Your task to perform on an android device: move an email to a new category in the gmail app Image 0: 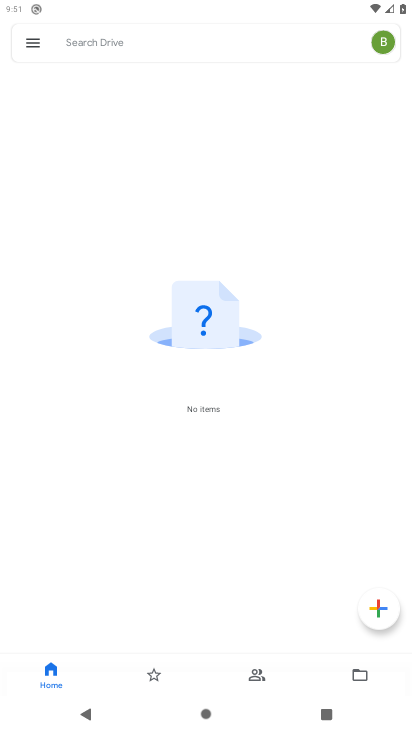
Step 0: click (122, 675)
Your task to perform on an android device: move an email to a new category in the gmail app Image 1: 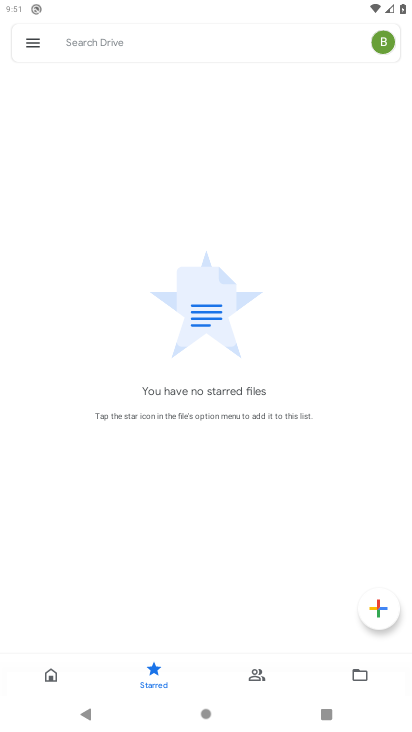
Step 1: press home button
Your task to perform on an android device: move an email to a new category in the gmail app Image 2: 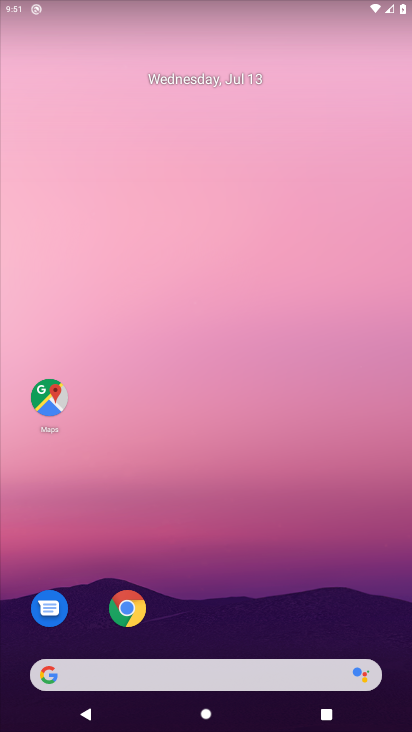
Step 2: drag from (113, 547) to (302, 92)
Your task to perform on an android device: move an email to a new category in the gmail app Image 3: 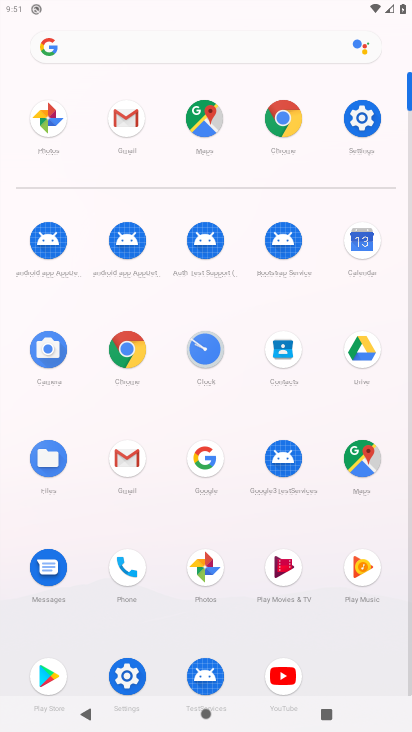
Step 3: click (124, 450)
Your task to perform on an android device: move an email to a new category in the gmail app Image 4: 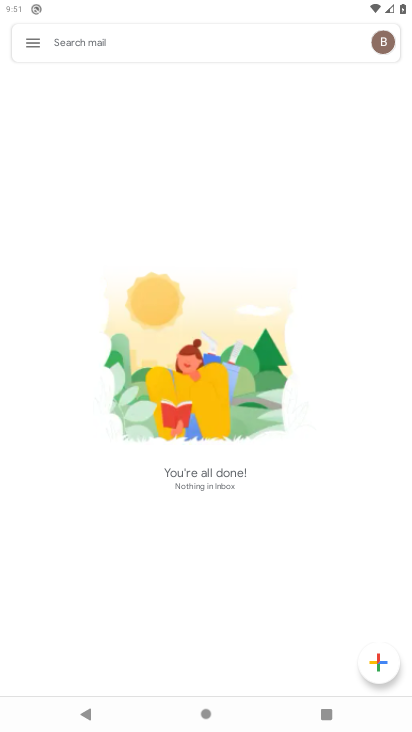
Step 4: click (34, 48)
Your task to perform on an android device: move an email to a new category in the gmail app Image 5: 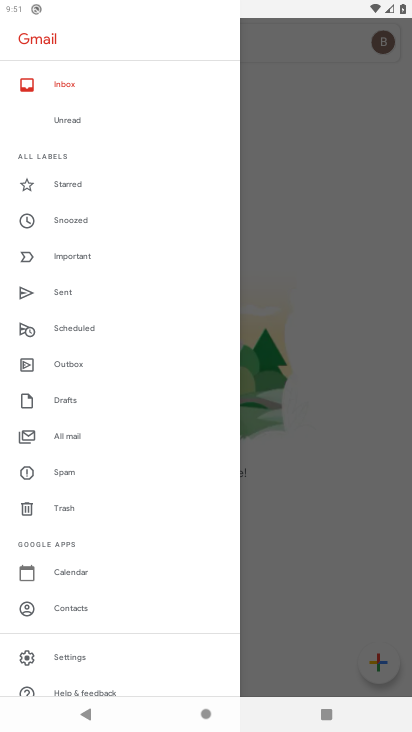
Step 5: click (75, 94)
Your task to perform on an android device: move an email to a new category in the gmail app Image 6: 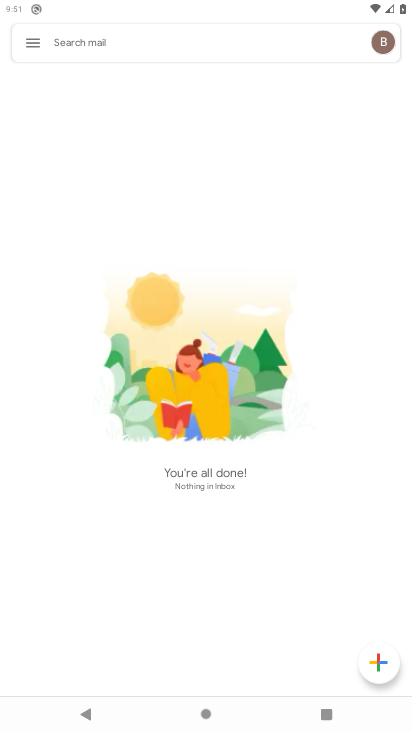
Step 6: task complete